Your task to perform on an android device: add a contact in the contacts app Image 0: 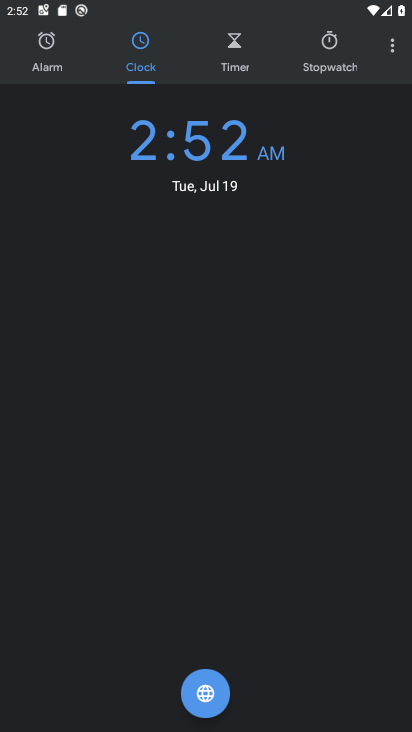
Step 0: press home button
Your task to perform on an android device: add a contact in the contacts app Image 1: 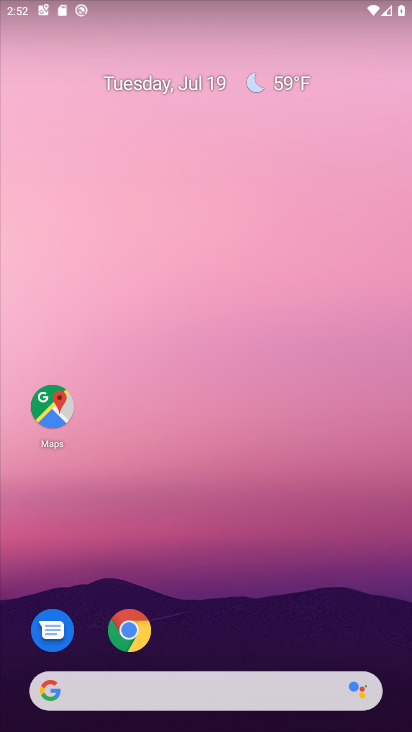
Step 1: drag from (210, 597) to (114, 234)
Your task to perform on an android device: add a contact in the contacts app Image 2: 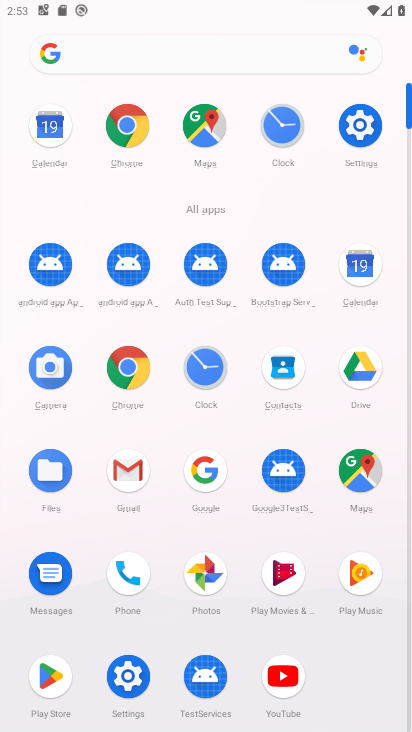
Step 2: click (284, 370)
Your task to perform on an android device: add a contact in the contacts app Image 3: 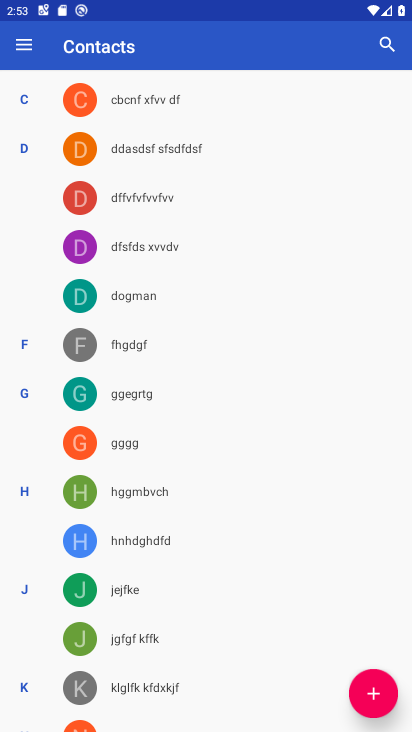
Step 3: click (372, 688)
Your task to perform on an android device: add a contact in the contacts app Image 4: 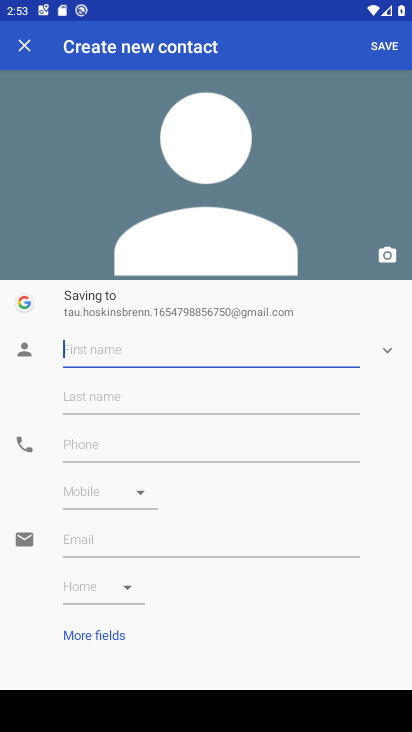
Step 4: type "lklk"
Your task to perform on an android device: add a contact in the contacts app Image 5: 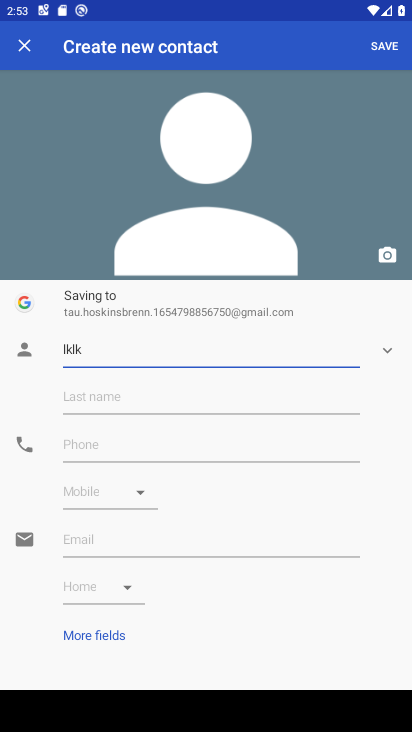
Step 5: click (190, 443)
Your task to perform on an android device: add a contact in the contacts app Image 6: 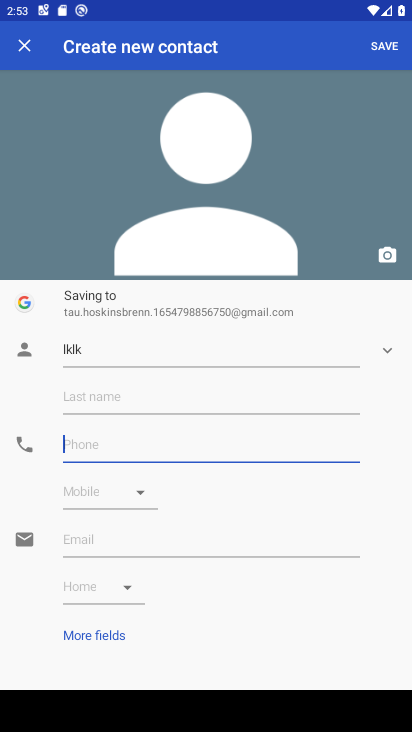
Step 6: click (202, 432)
Your task to perform on an android device: add a contact in the contacts app Image 7: 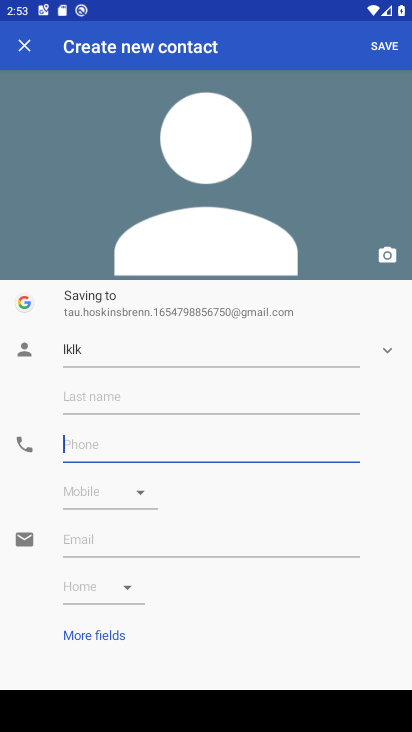
Step 7: type "7878"
Your task to perform on an android device: add a contact in the contacts app Image 8: 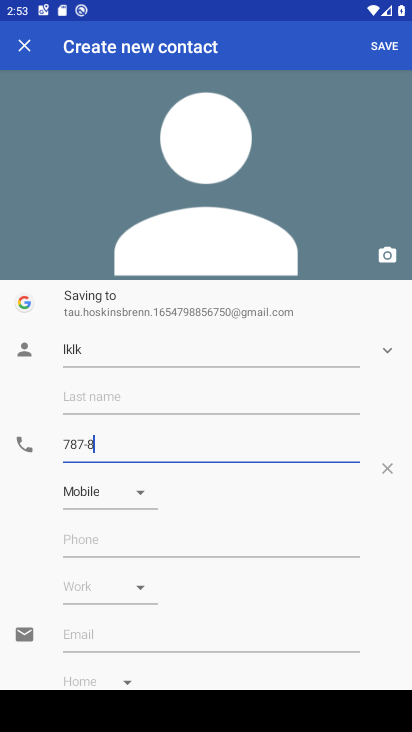
Step 8: click (377, 44)
Your task to perform on an android device: add a contact in the contacts app Image 9: 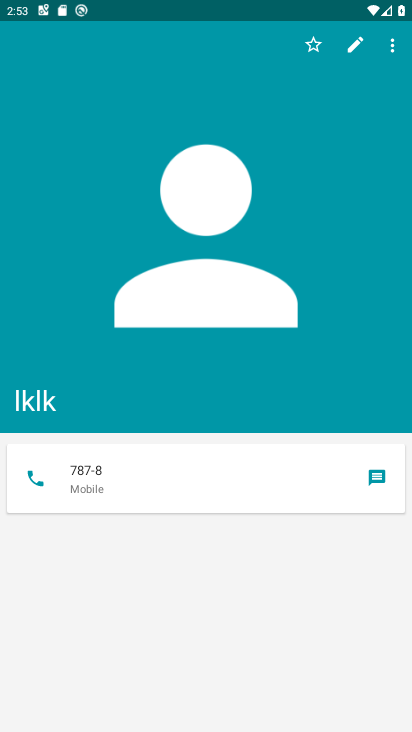
Step 9: task complete